Your task to perform on an android device: change keyboard looks Image 0: 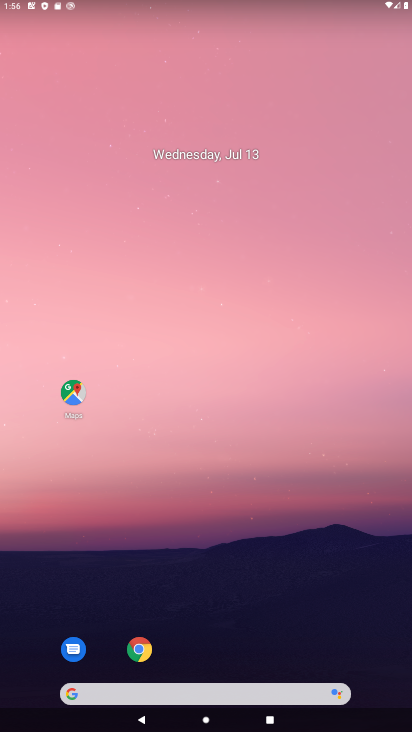
Step 0: drag from (293, 607) to (284, 0)
Your task to perform on an android device: change keyboard looks Image 1: 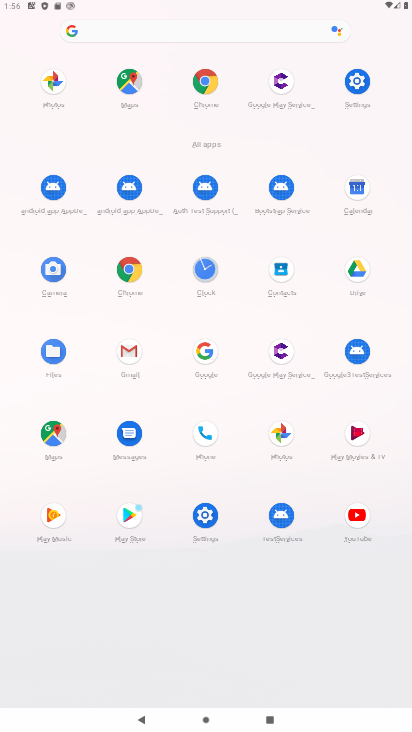
Step 1: click (347, 79)
Your task to perform on an android device: change keyboard looks Image 2: 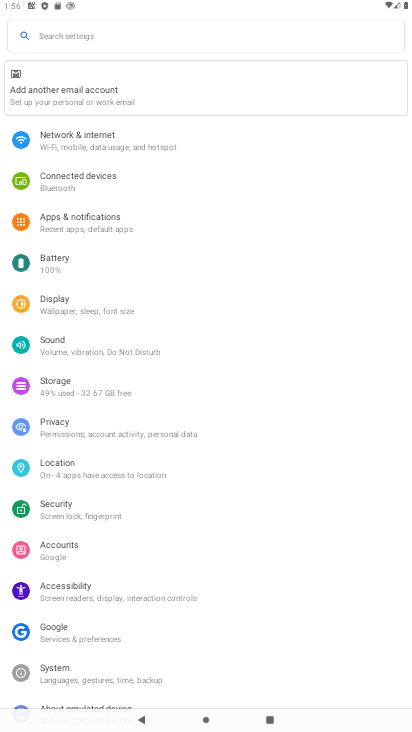
Step 2: click (103, 679)
Your task to perform on an android device: change keyboard looks Image 3: 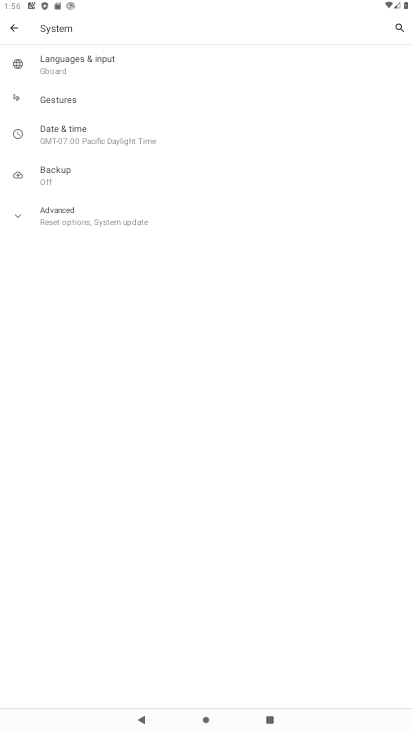
Step 3: click (95, 71)
Your task to perform on an android device: change keyboard looks Image 4: 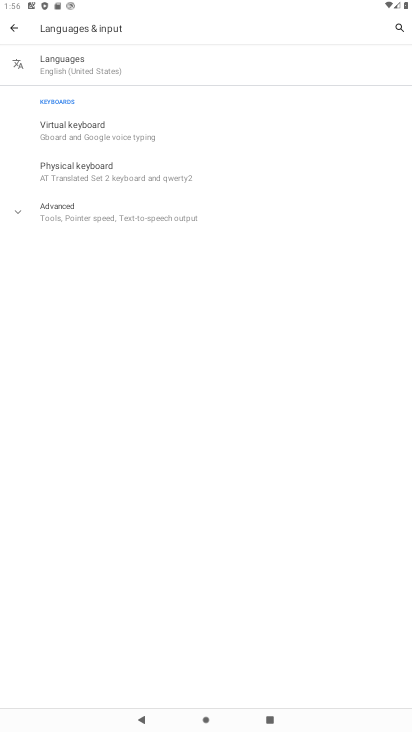
Step 4: click (105, 120)
Your task to perform on an android device: change keyboard looks Image 5: 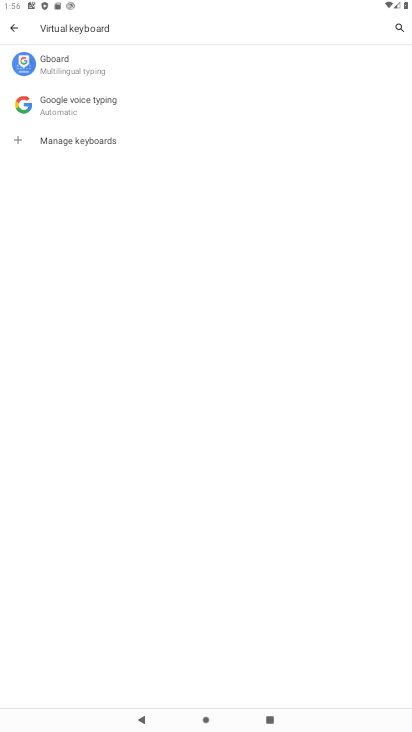
Step 5: click (98, 65)
Your task to perform on an android device: change keyboard looks Image 6: 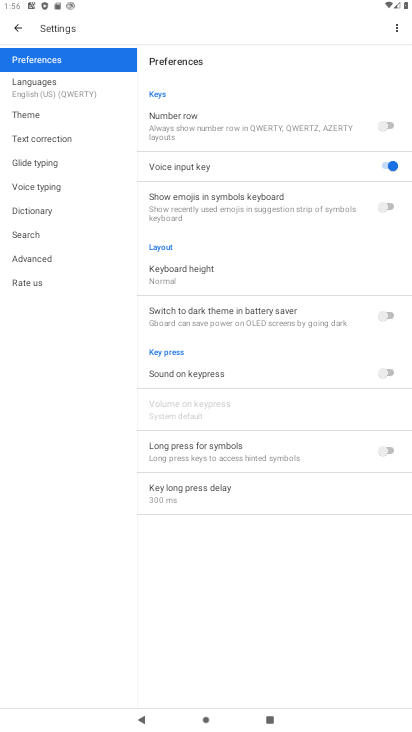
Step 6: click (60, 108)
Your task to perform on an android device: change keyboard looks Image 7: 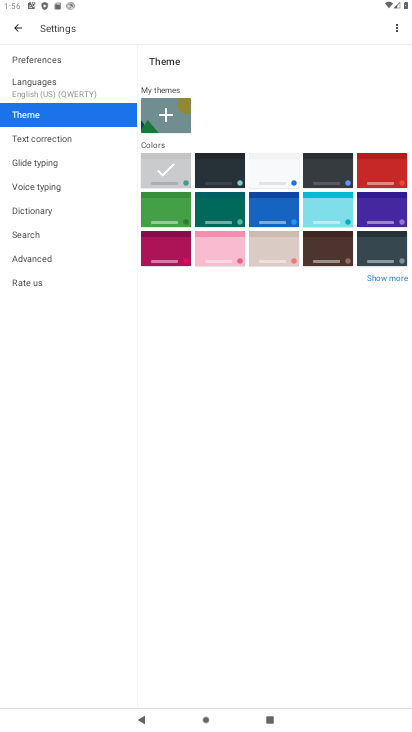
Step 7: click (207, 202)
Your task to perform on an android device: change keyboard looks Image 8: 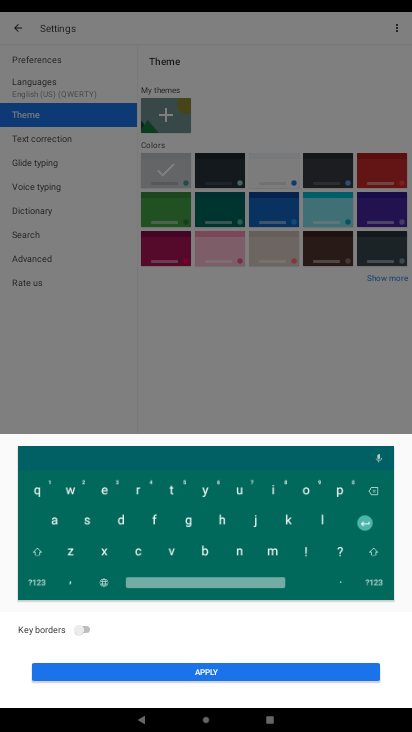
Step 8: click (235, 672)
Your task to perform on an android device: change keyboard looks Image 9: 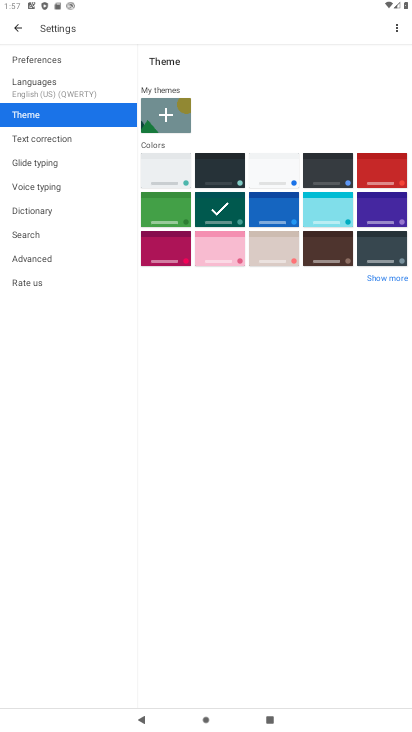
Step 9: task complete